Your task to perform on an android device: What's the news in Argentina? Image 0: 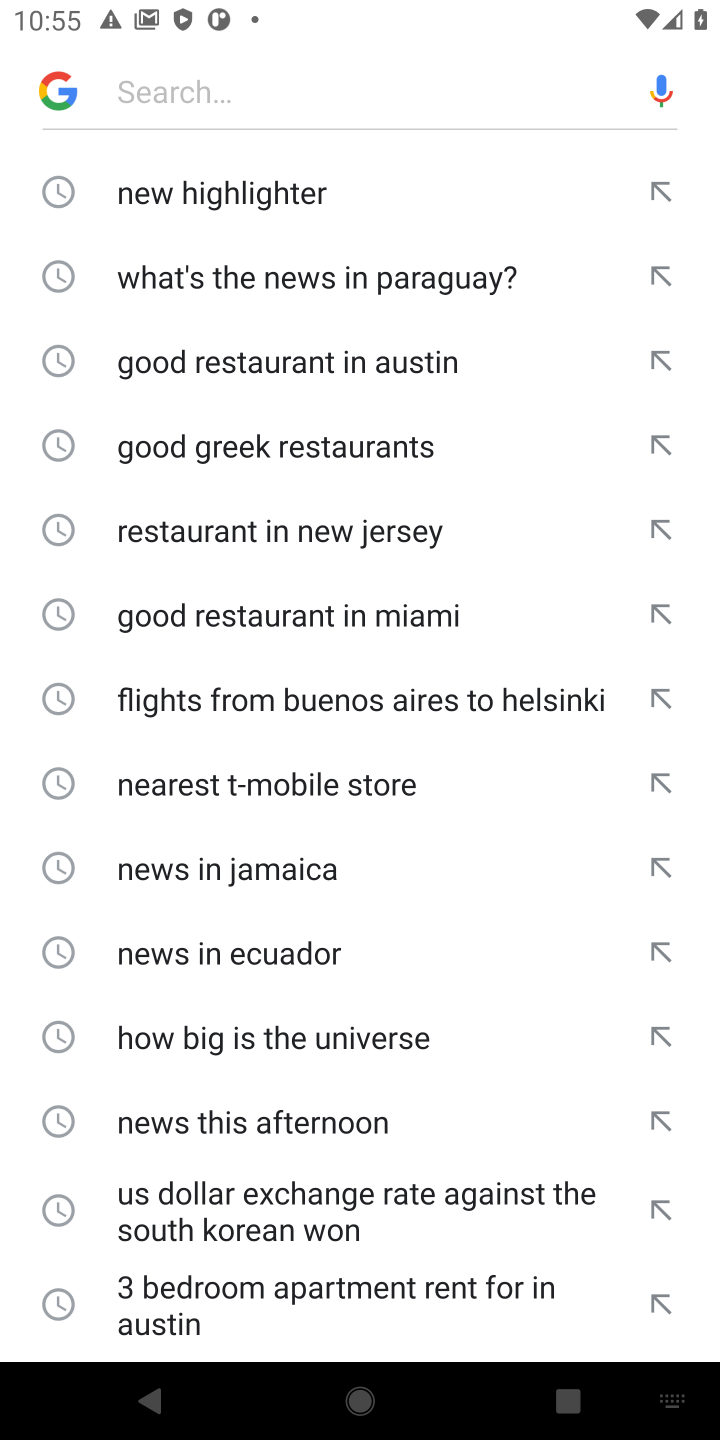
Step 0: type "news in argentina"
Your task to perform on an android device: What's the news in Argentina? Image 1: 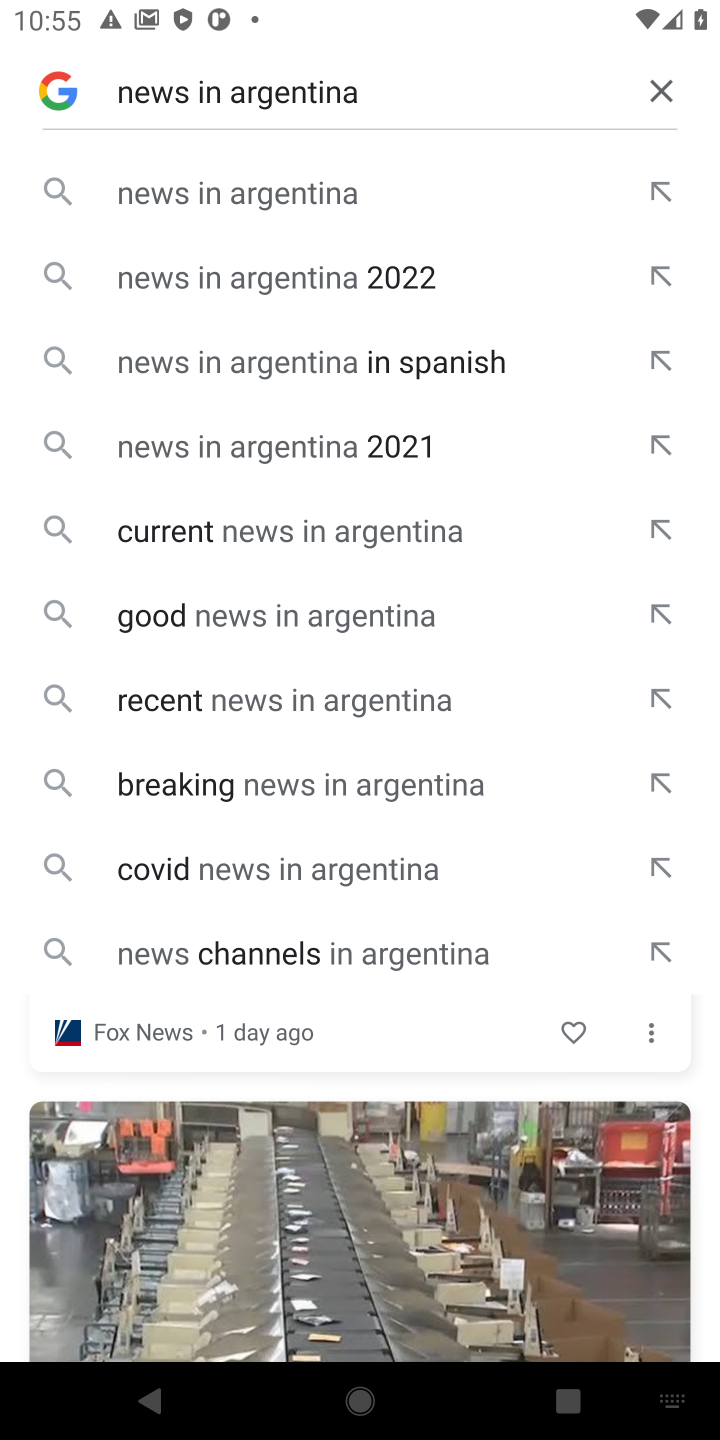
Step 1: click (357, 176)
Your task to perform on an android device: What's the news in Argentina? Image 2: 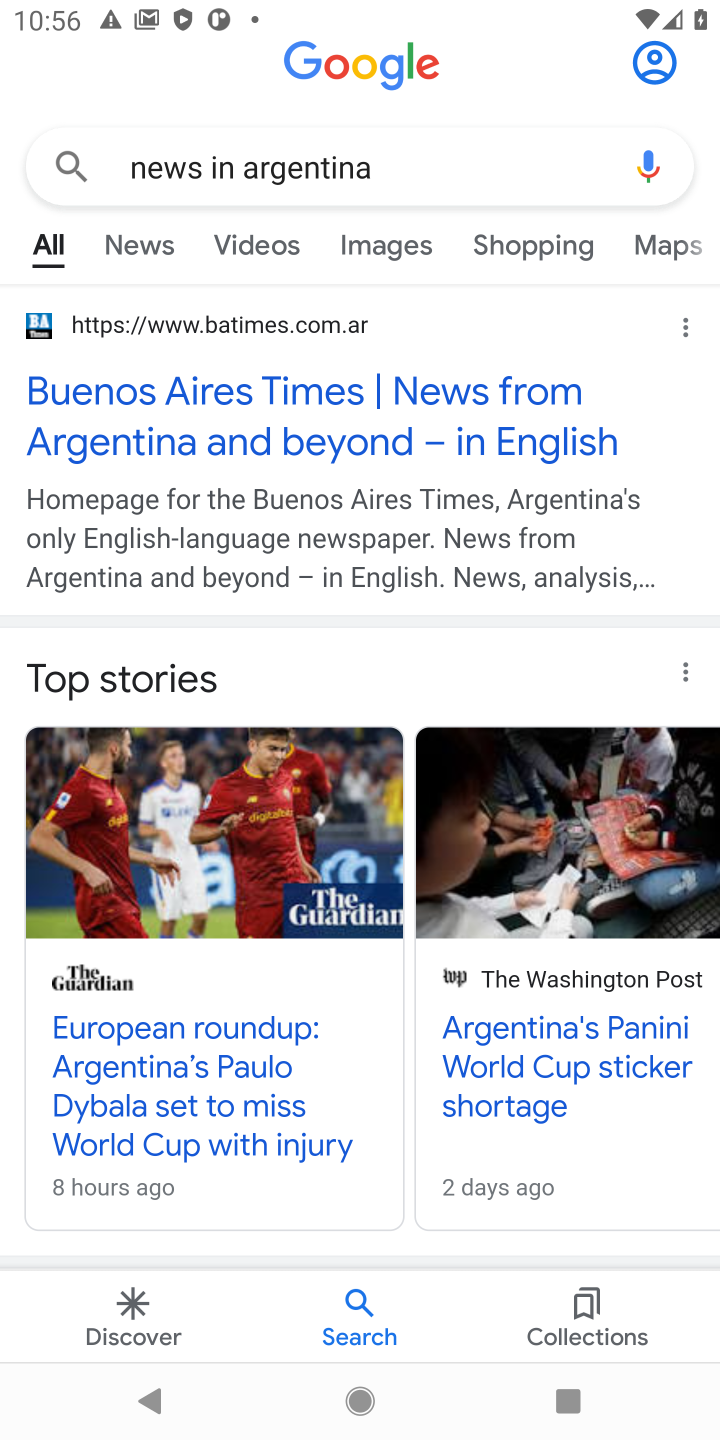
Step 2: click (137, 238)
Your task to perform on an android device: What's the news in Argentina? Image 3: 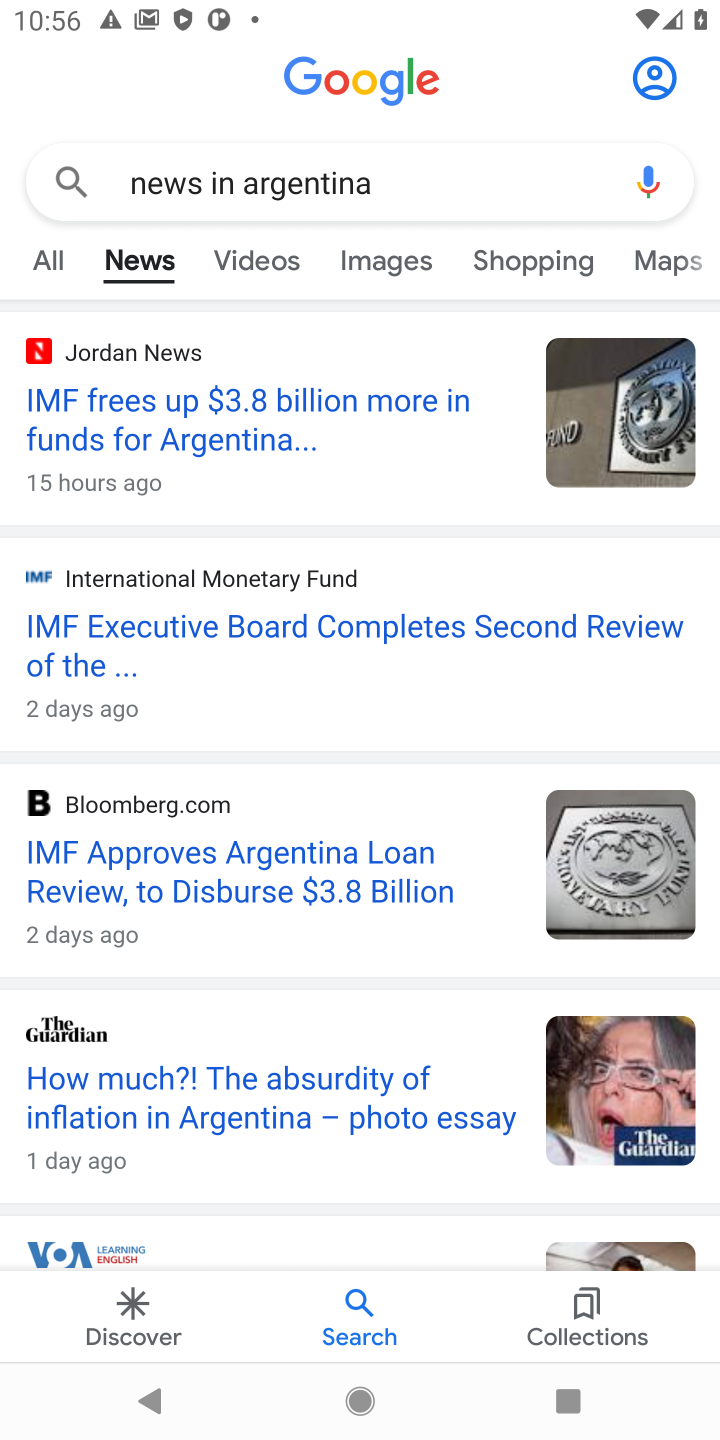
Step 3: task complete